Your task to perform on an android device: empty trash in google photos Image 0: 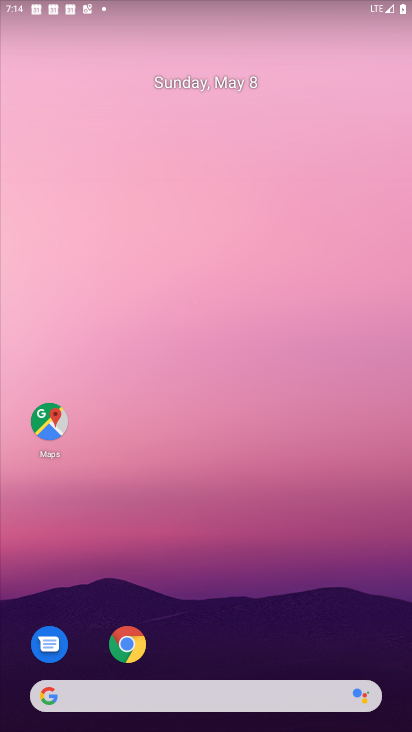
Step 0: drag from (282, 631) to (241, 137)
Your task to perform on an android device: empty trash in google photos Image 1: 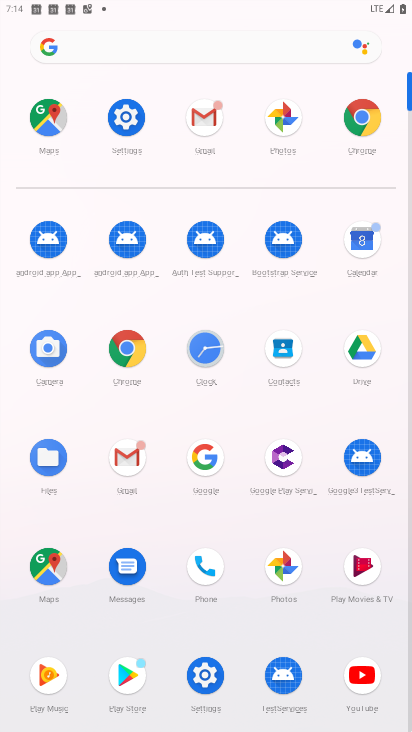
Step 1: click (291, 564)
Your task to perform on an android device: empty trash in google photos Image 2: 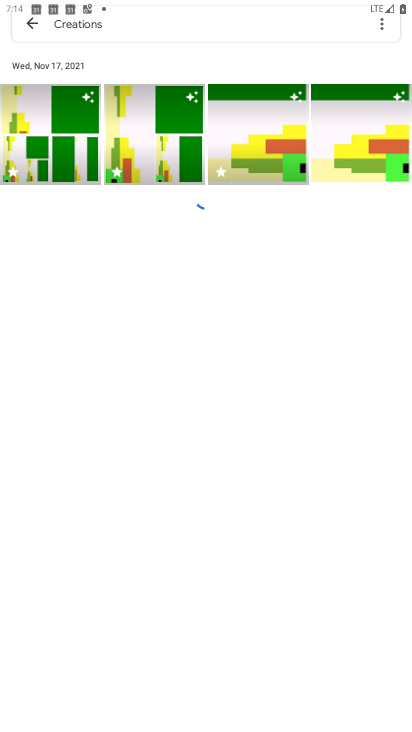
Step 2: drag from (232, 255) to (224, 178)
Your task to perform on an android device: empty trash in google photos Image 3: 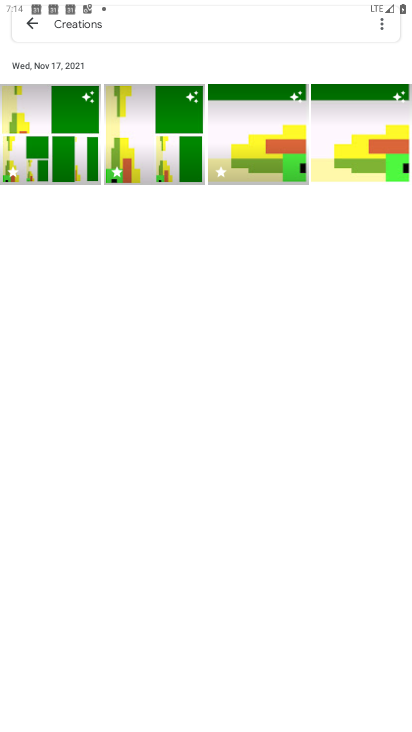
Step 3: drag from (182, 153) to (339, 678)
Your task to perform on an android device: empty trash in google photos Image 4: 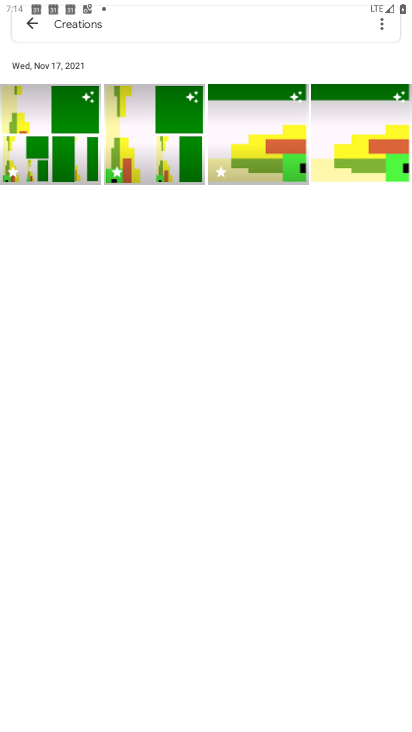
Step 4: click (35, 30)
Your task to perform on an android device: empty trash in google photos Image 5: 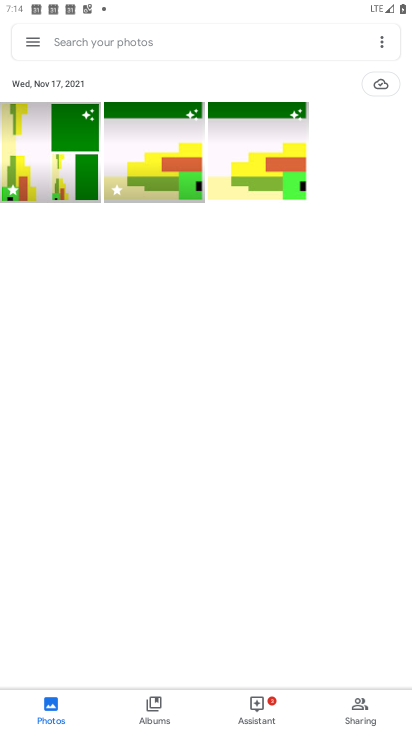
Step 5: click (33, 56)
Your task to perform on an android device: empty trash in google photos Image 6: 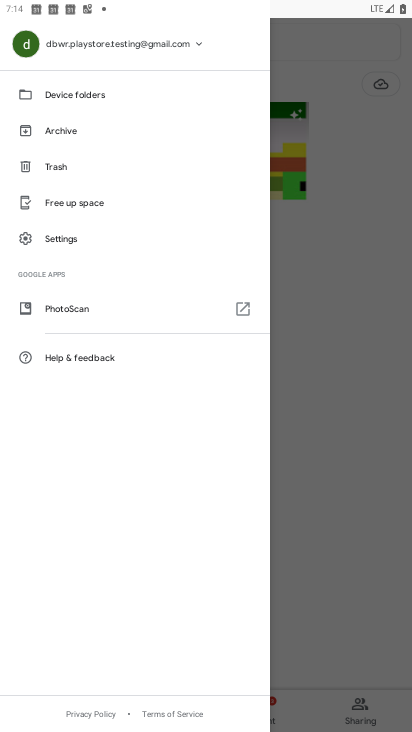
Step 6: click (59, 173)
Your task to perform on an android device: empty trash in google photos Image 7: 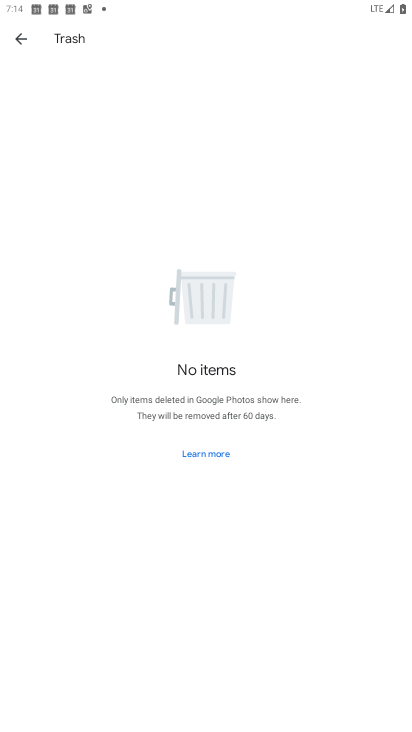
Step 7: task complete